Your task to perform on an android device: Clear all items from cart on ebay.com. Image 0: 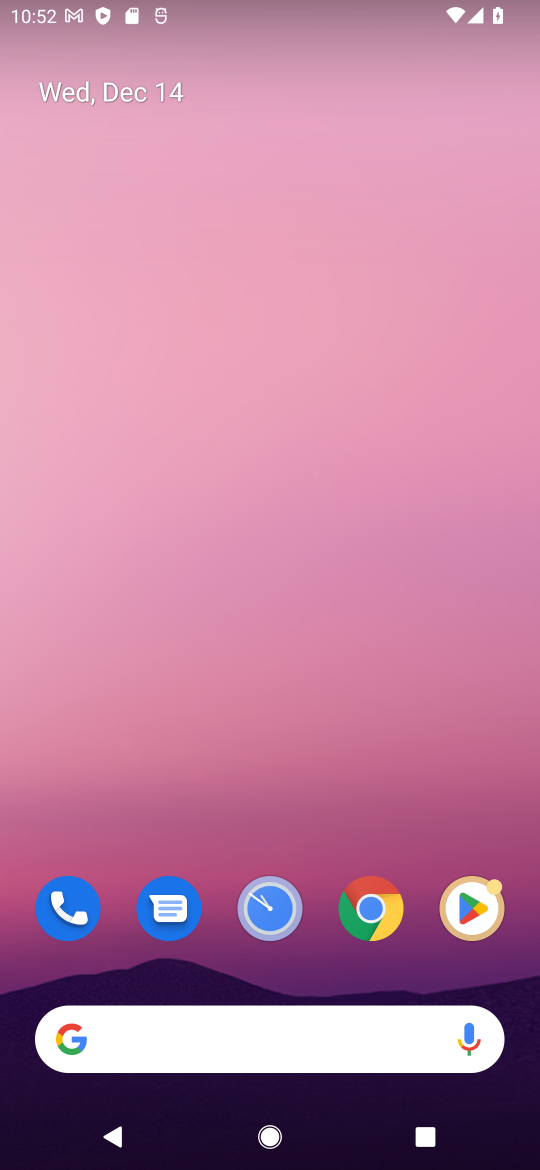
Step 0: click (368, 916)
Your task to perform on an android device: Clear all items from cart on ebay.com. Image 1: 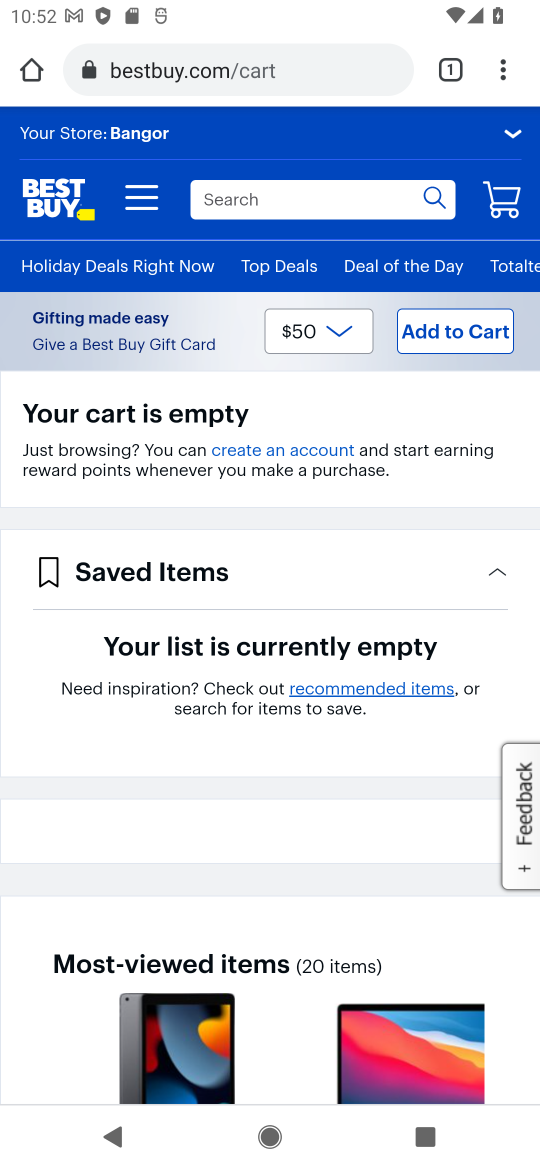
Step 1: click (166, 81)
Your task to perform on an android device: Clear all items from cart on ebay.com. Image 2: 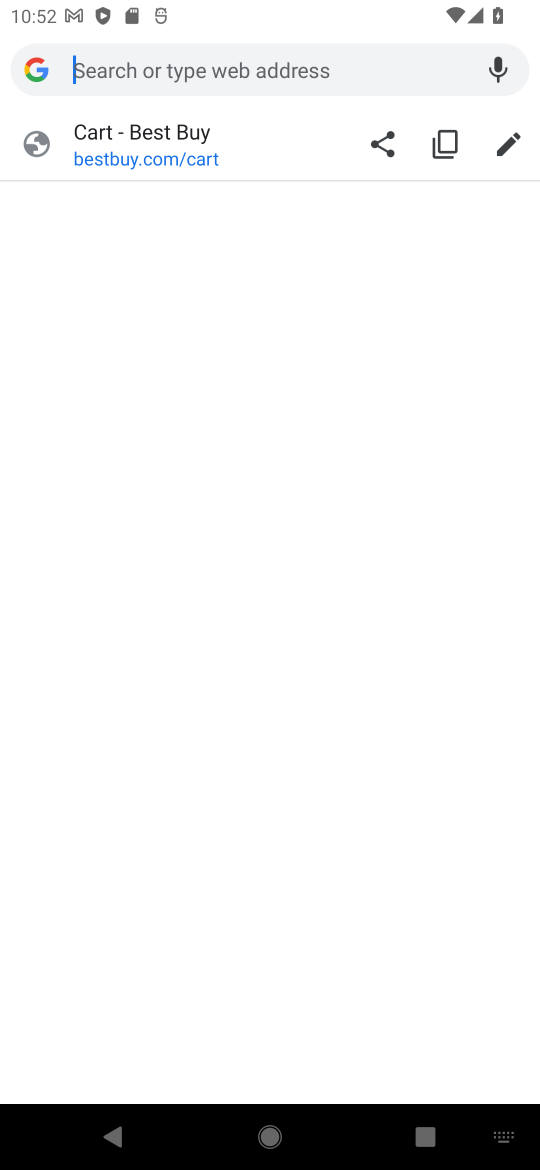
Step 2: type "ebay.com"
Your task to perform on an android device: Clear all items from cart on ebay.com. Image 3: 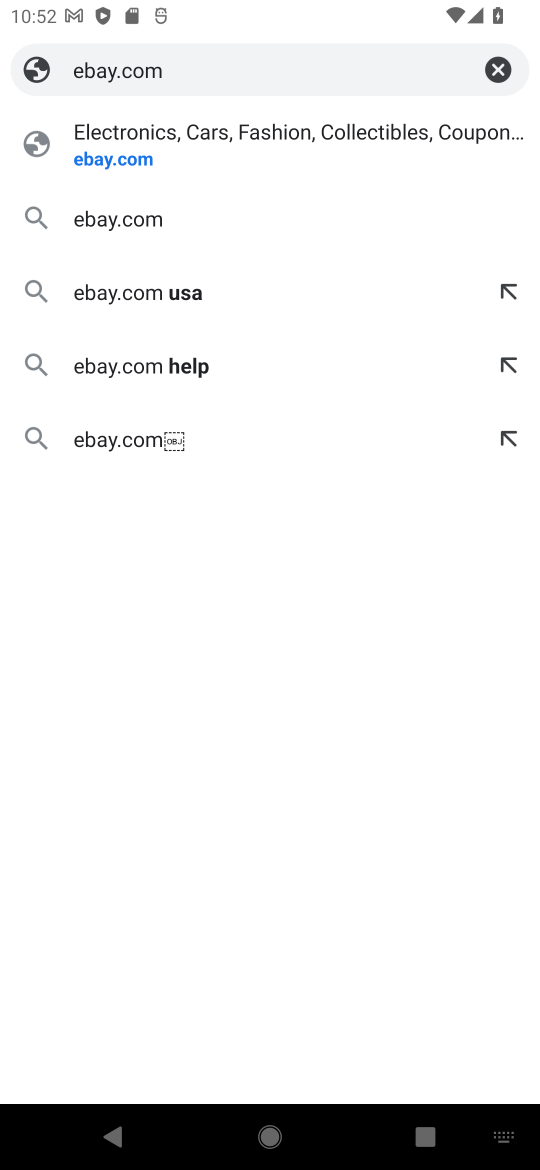
Step 3: click (103, 160)
Your task to perform on an android device: Clear all items from cart on ebay.com. Image 4: 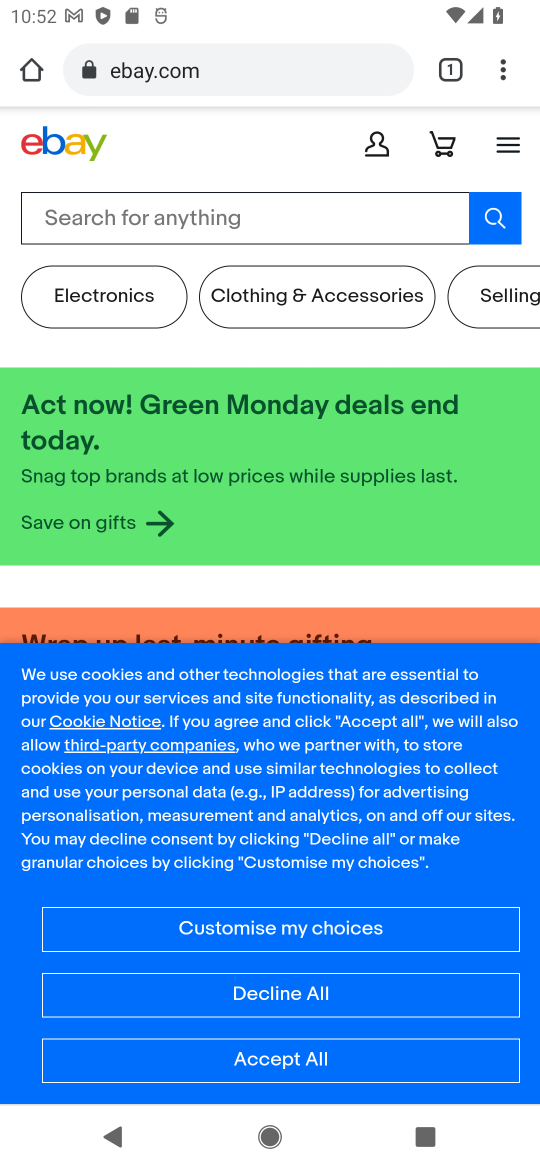
Step 4: click (443, 143)
Your task to perform on an android device: Clear all items from cart on ebay.com. Image 5: 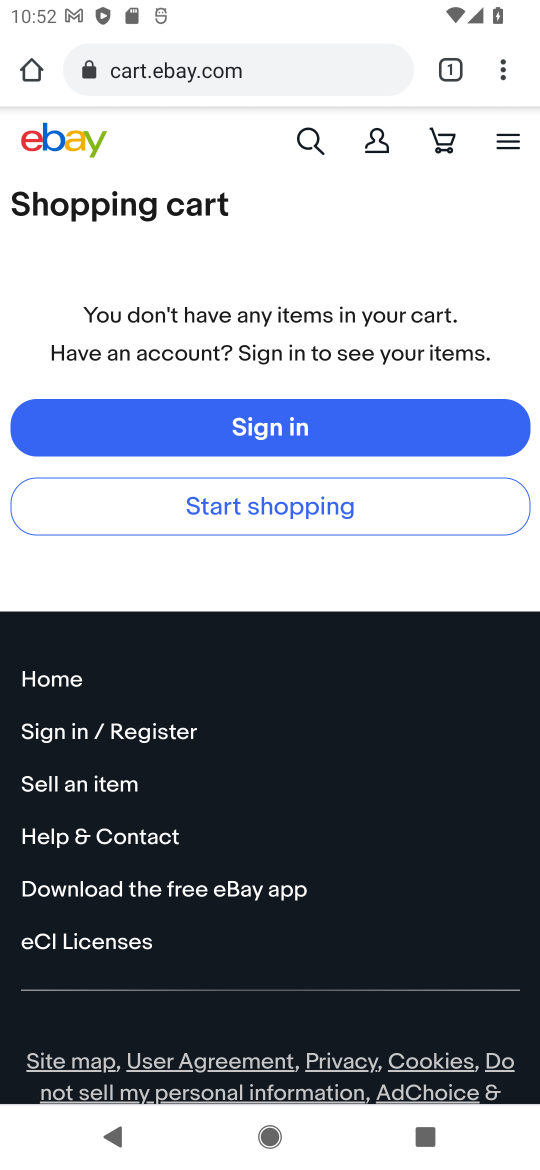
Step 5: task complete